Your task to perform on an android device: Set the phone to "Do not disturb". Image 0: 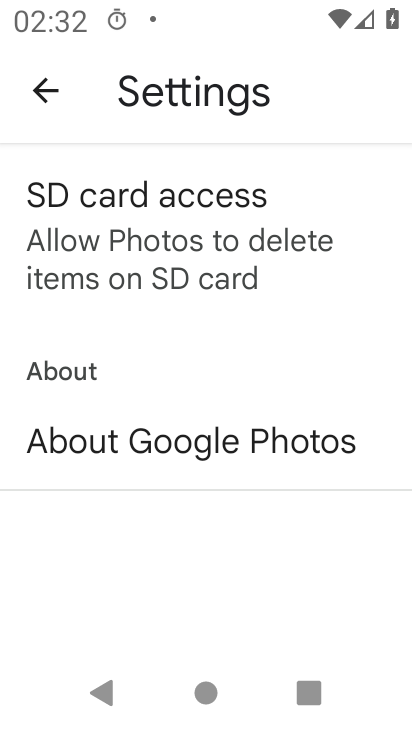
Step 0: press home button
Your task to perform on an android device: Set the phone to "Do not disturb". Image 1: 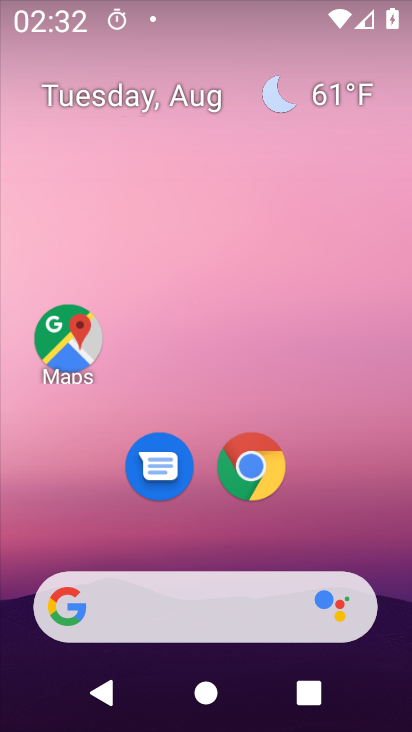
Step 1: drag from (383, 583) to (409, 149)
Your task to perform on an android device: Set the phone to "Do not disturb". Image 2: 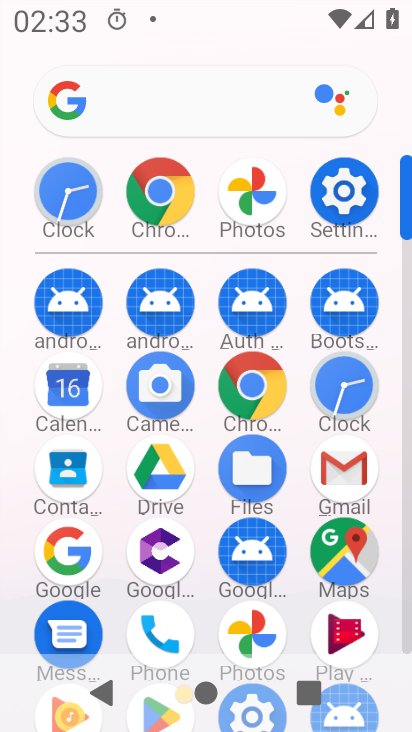
Step 2: click (341, 207)
Your task to perform on an android device: Set the phone to "Do not disturb". Image 3: 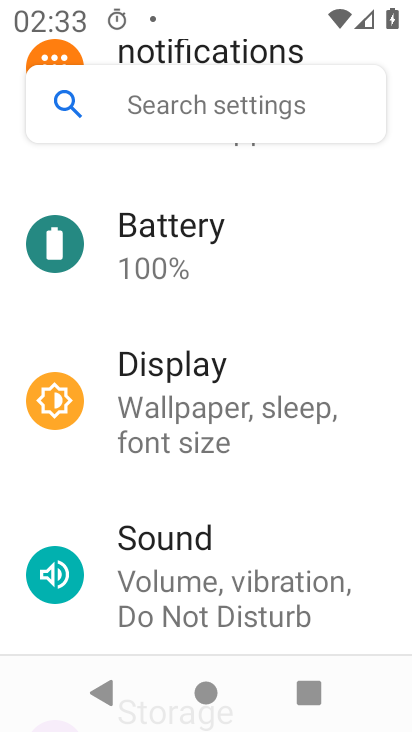
Step 3: drag from (328, 482) to (369, 352)
Your task to perform on an android device: Set the phone to "Do not disturb". Image 4: 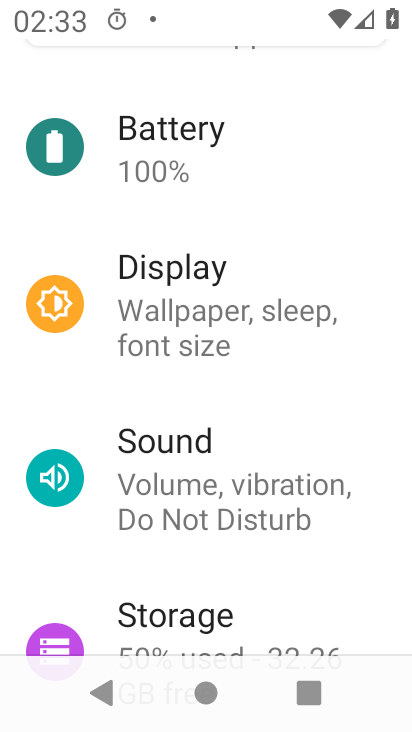
Step 4: drag from (347, 532) to (373, 421)
Your task to perform on an android device: Set the phone to "Do not disturb". Image 5: 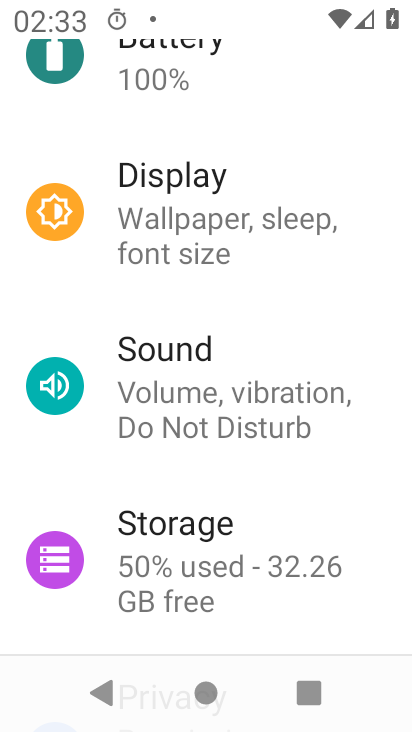
Step 5: click (284, 413)
Your task to perform on an android device: Set the phone to "Do not disturb". Image 6: 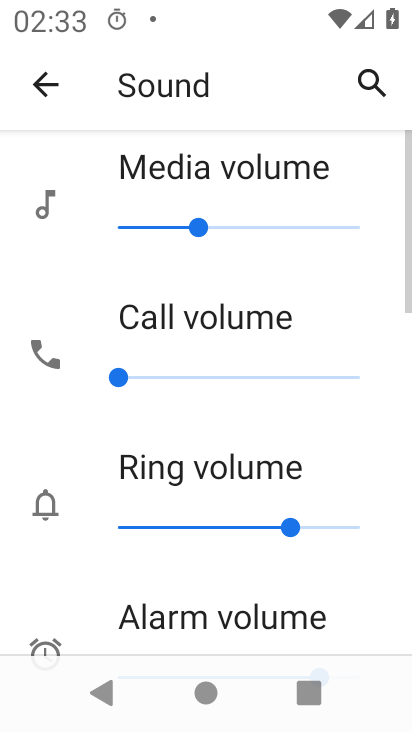
Step 6: drag from (340, 539) to (370, 423)
Your task to perform on an android device: Set the phone to "Do not disturb". Image 7: 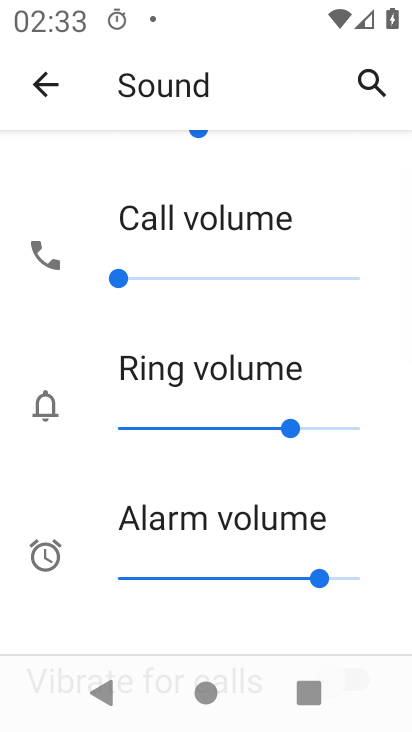
Step 7: drag from (372, 558) to (386, 434)
Your task to perform on an android device: Set the phone to "Do not disturb". Image 8: 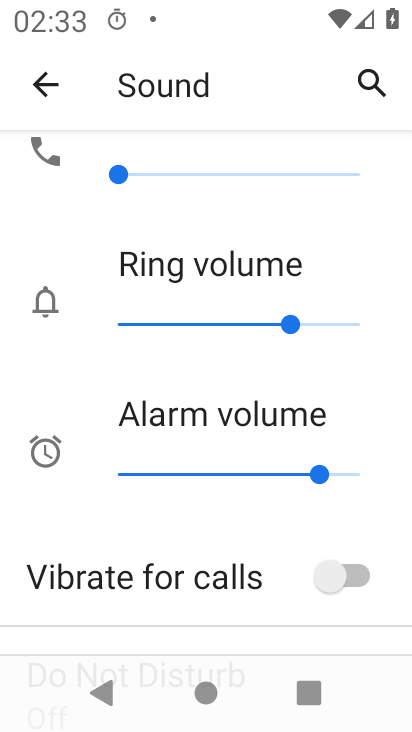
Step 8: drag from (367, 610) to (390, 437)
Your task to perform on an android device: Set the phone to "Do not disturb". Image 9: 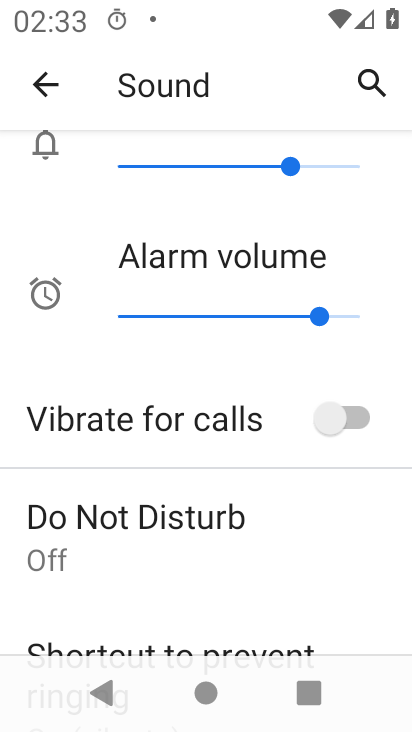
Step 9: drag from (340, 577) to (368, 426)
Your task to perform on an android device: Set the phone to "Do not disturb". Image 10: 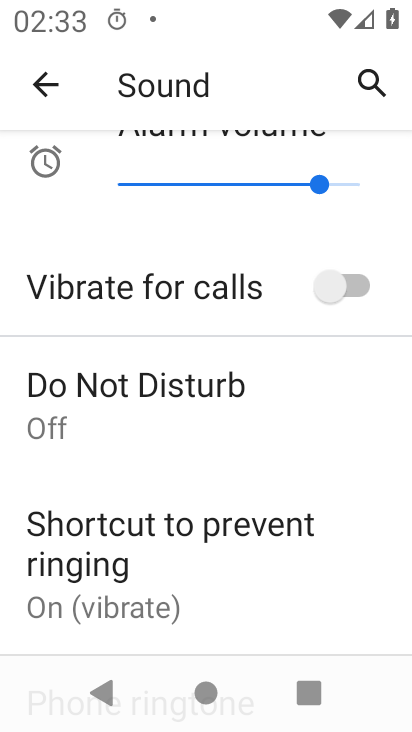
Step 10: click (250, 409)
Your task to perform on an android device: Set the phone to "Do not disturb". Image 11: 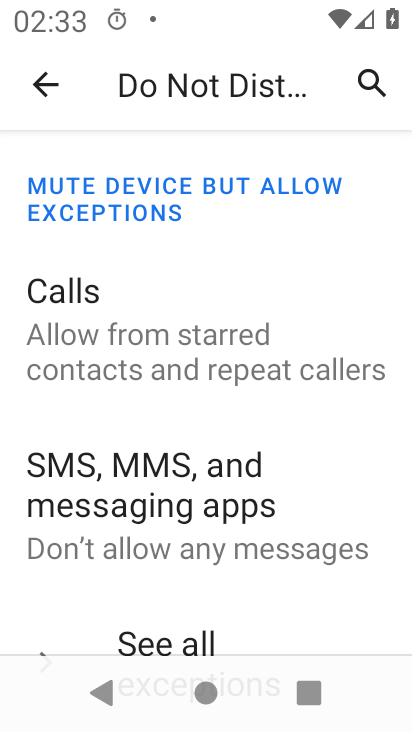
Step 11: drag from (291, 583) to (299, 427)
Your task to perform on an android device: Set the phone to "Do not disturb". Image 12: 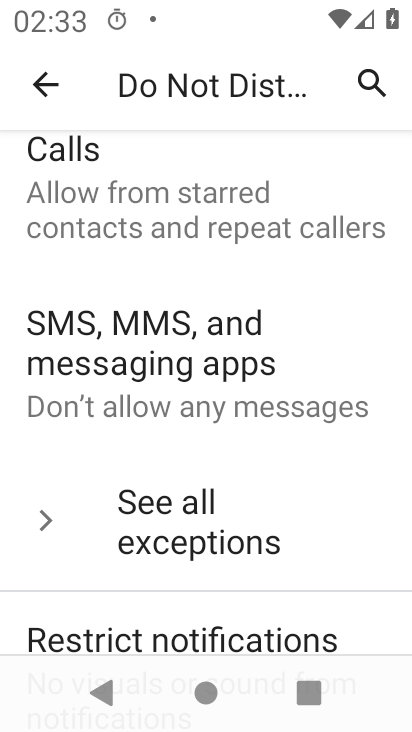
Step 12: drag from (278, 578) to (309, 392)
Your task to perform on an android device: Set the phone to "Do not disturb". Image 13: 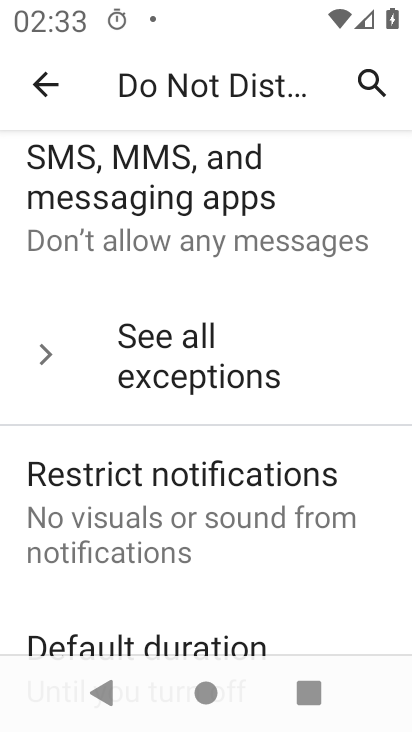
Step 13: drag from (340, 593) to (382, 409)
Your task to perform on an android device: Set the phone to "Do not disturb". Image 14: 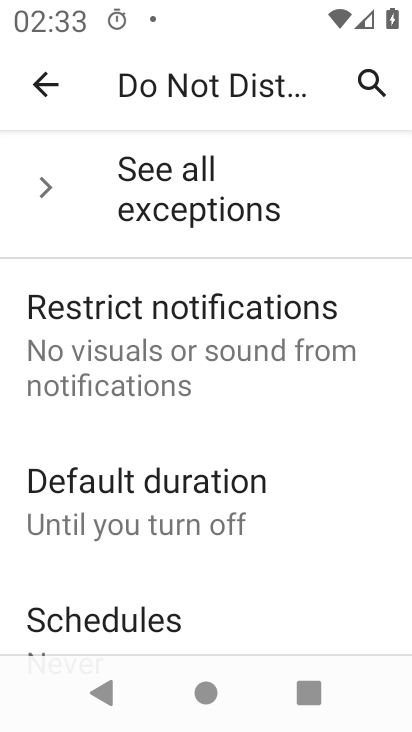
Step 14: drag from (343, 561) to (348, 384)
Your task to perform on an android device: Set the phone to "Do not disturb". Image 15: 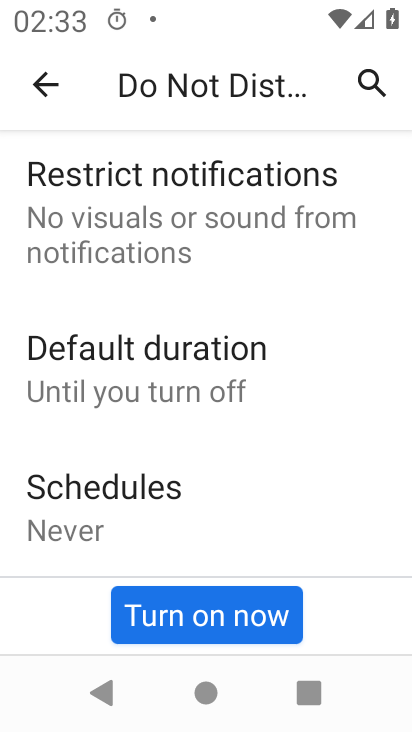
Step 15: drag from (353, 601) to (373, 415)
Your task to perform on an android device: Set the phone to "Do not disturb". Image 16: 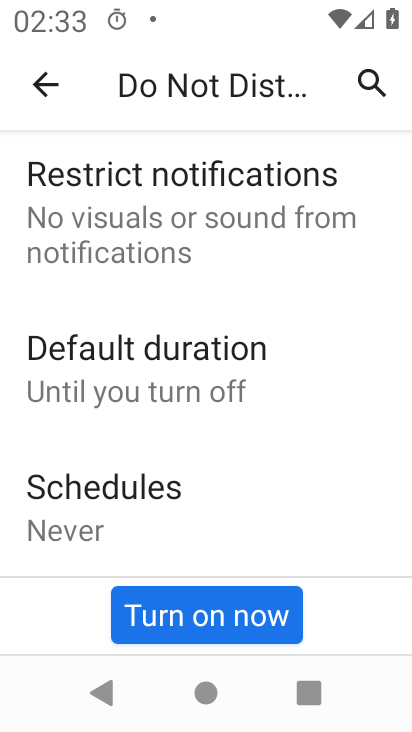
Step 16: click (240, 619)
Your task to perform on an android device: Set the phone to "Do not disturb". Image 17: 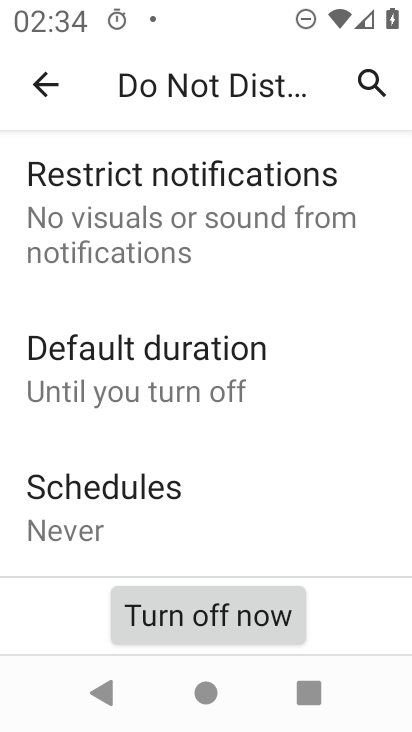
Step 17: task complete